Your task to perform on an android device: all mails in gmail Image 0: 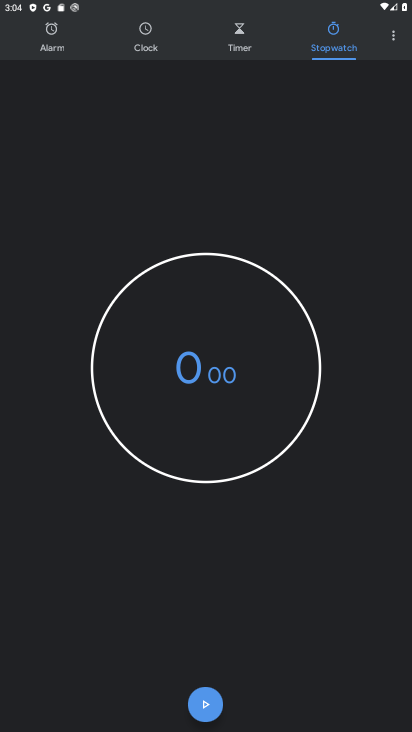
Step 0: press home button
Your task to perform on an android device: all mails in gmail Image 1: 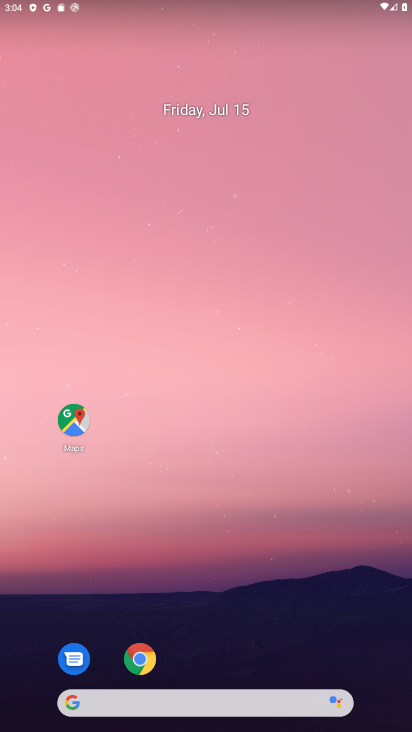
Step 1: drag from (227, 565) to (176, 0)
Your task to perform on an android device: all mails in gmail Image 2: 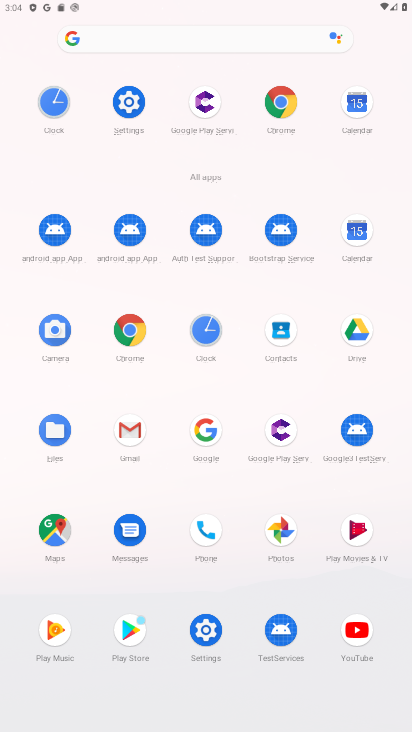
Step 2: click (126, 424)
Your task to perform on an android device: all mails in gmail Image 3: 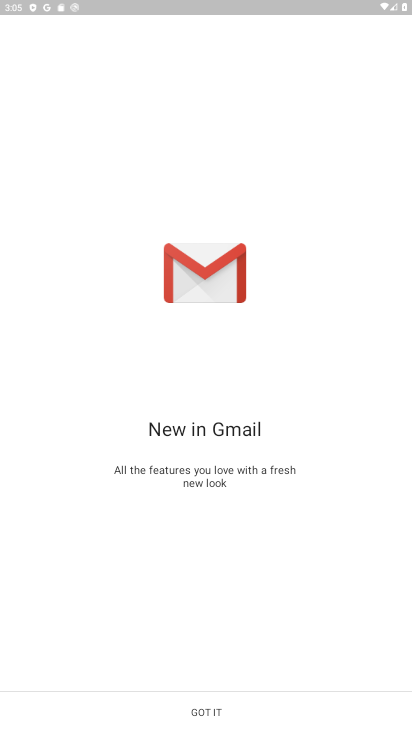
Step 3: click (205, 709)
Your task to perform on an android device: all mails in gmail Image 4: 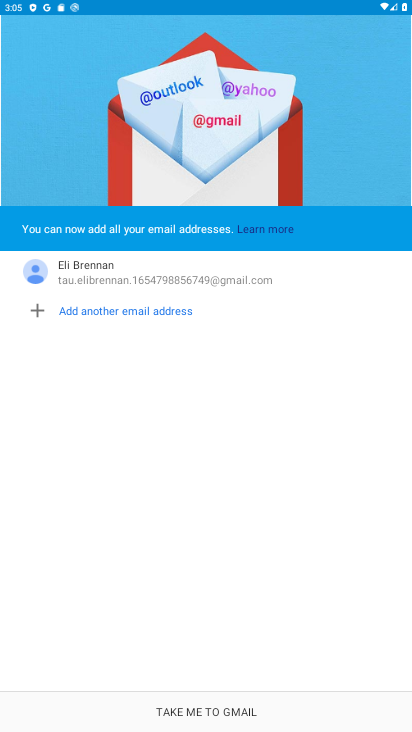
Step 4: click (202, 713)
Your task to perform on an android device: all mails in gmail Image 5: 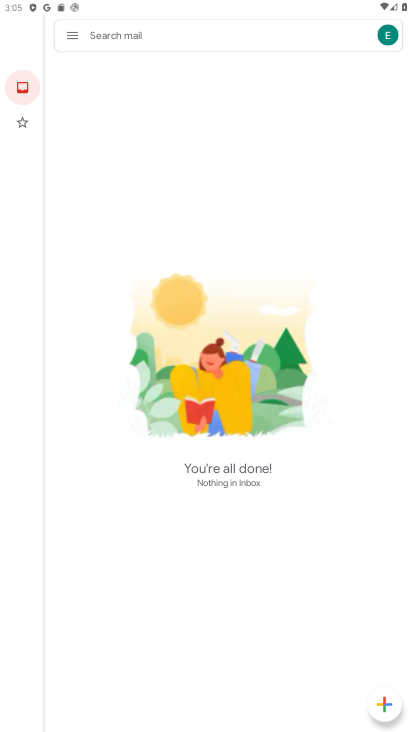
Step 5: task complete